Your task to perform on an android device: change the clock display to digital Image 0: 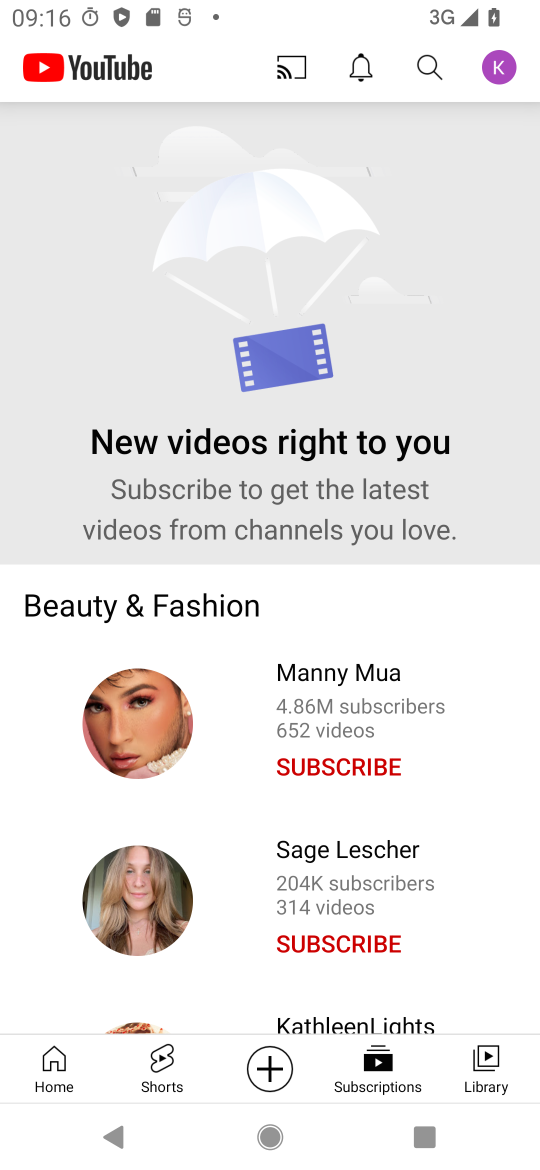
Step 0: press home button
Your task to perform on an android device: change the clock display to digital Image 1: 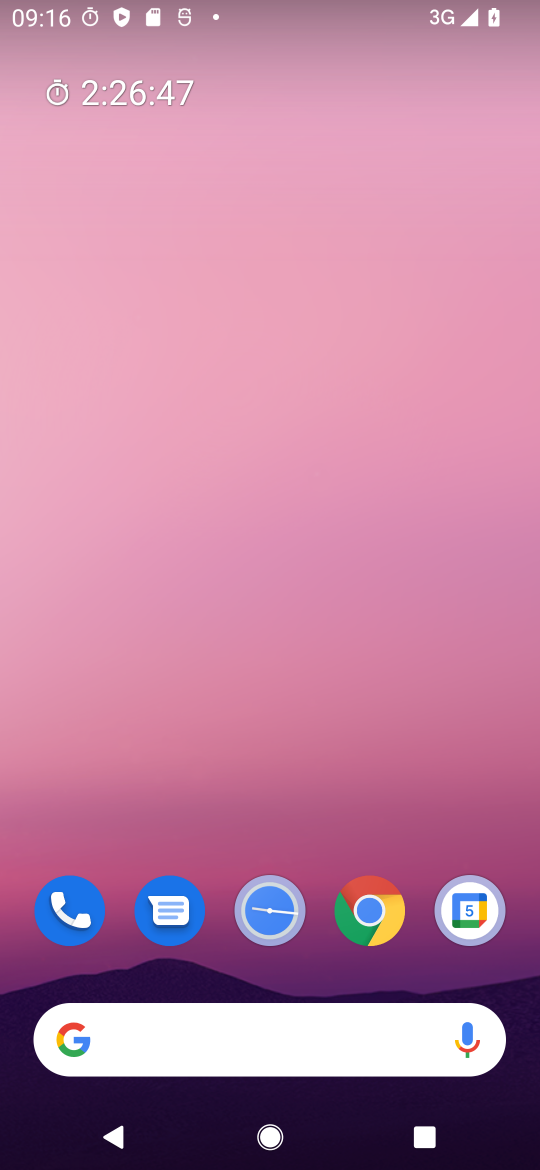
Step 1: drag from (265, 1051) to (345, 24)
Your task to perform on an android device: change the clock display to digital Image 2: 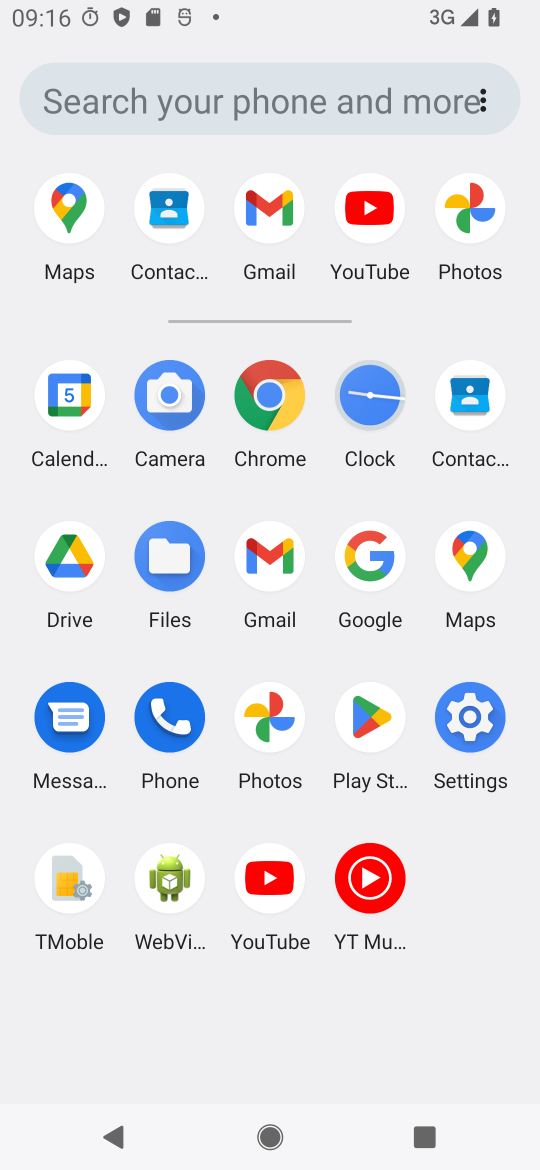
Step 2: click (381, 414)
Your task to perform on an android device: change the clock display to digital Image 3: 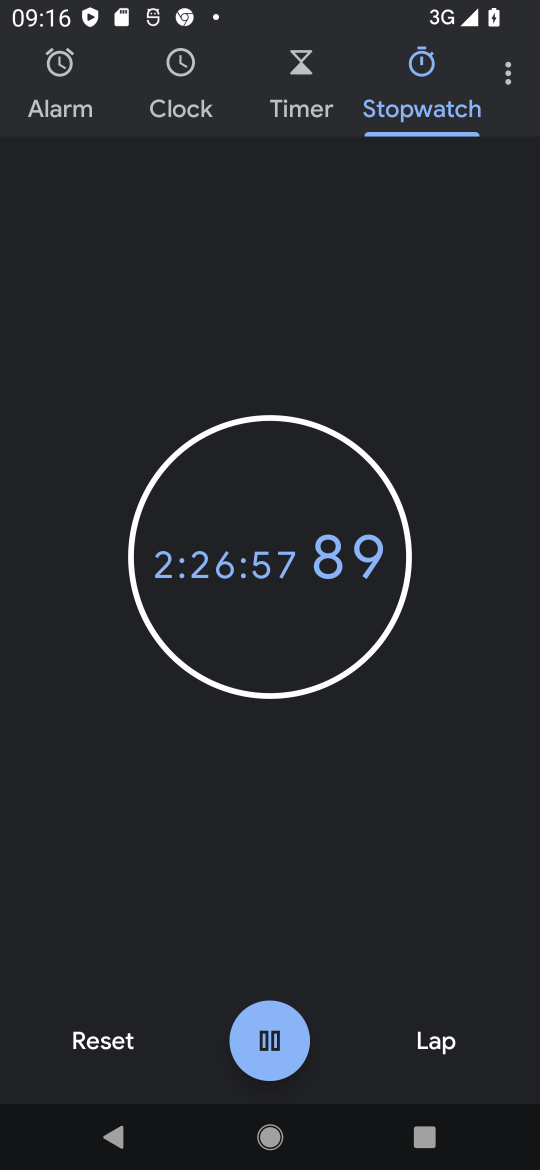
Step 3: click (504, 86)
Your task to perform on an android device: change the clock display to digital Image 4: 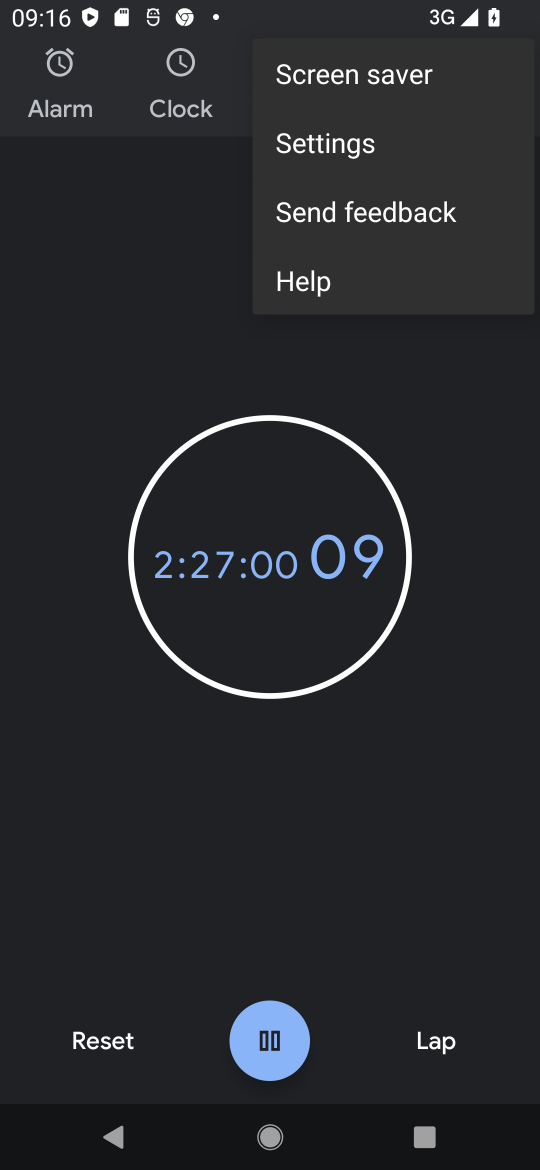
Step 4: click (353, 145)
Your task to perform on an android device: change the clock display to digital Image 5: 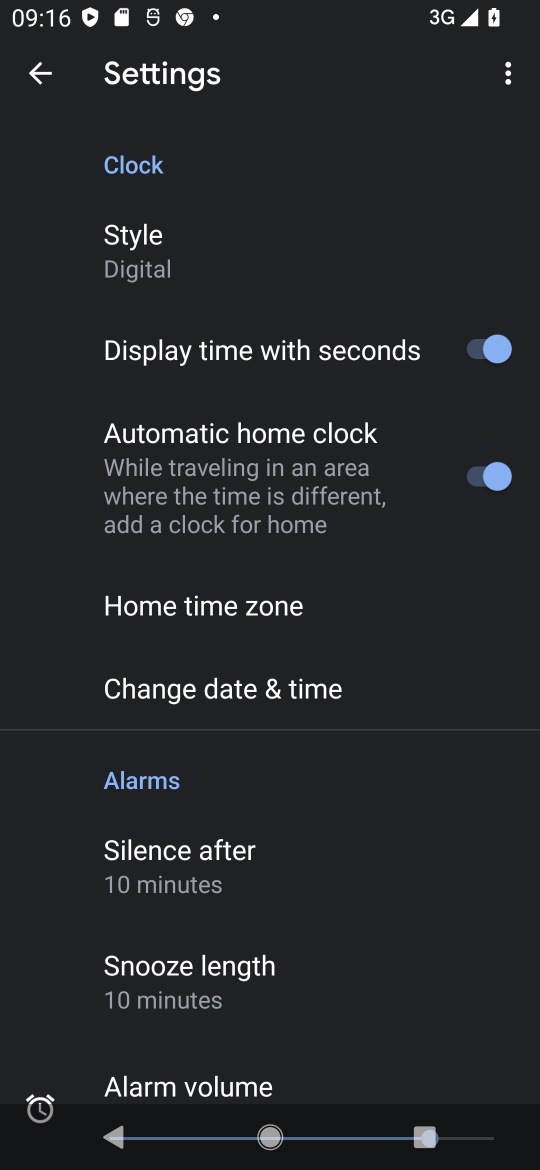
Step 5: task complete